Your task to perform on an android device: Go to CNN.com Image 0: 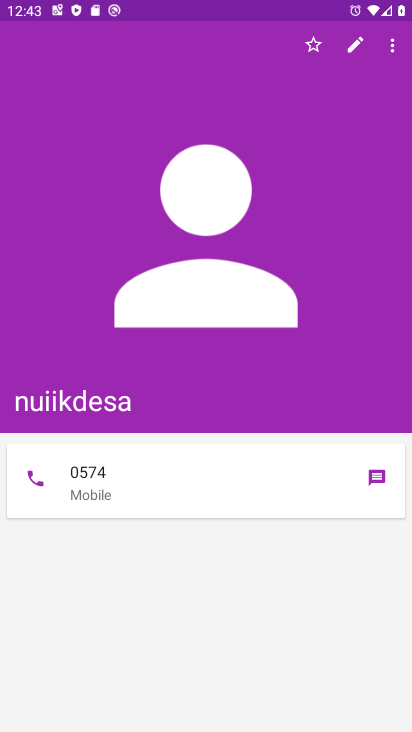
Step 0: press home button
Your task to perform on an android device: Go to CNN.com Image 1: 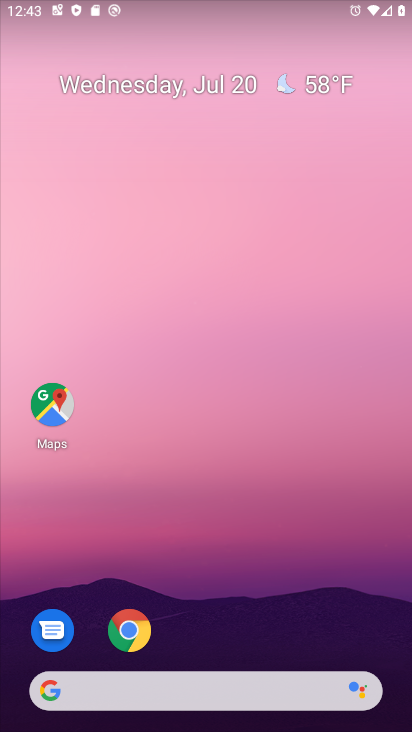
Step 1: click (132, 623)
Your task to perform on an android device: Go to CNN.com Image 2: 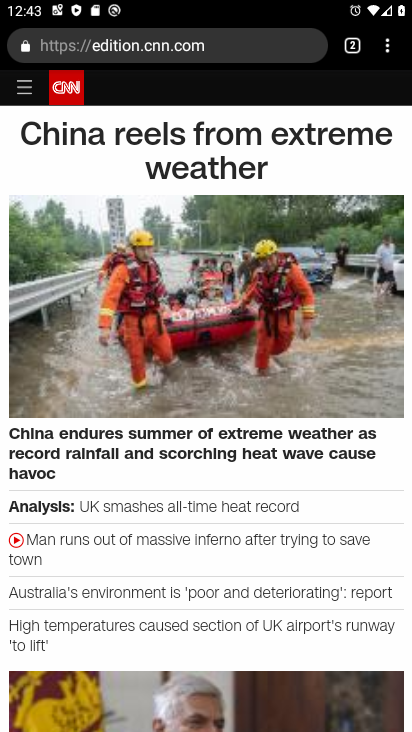
Step 2: task complete